Your task to perform on an android device: open chrome privacy settings Image 0: 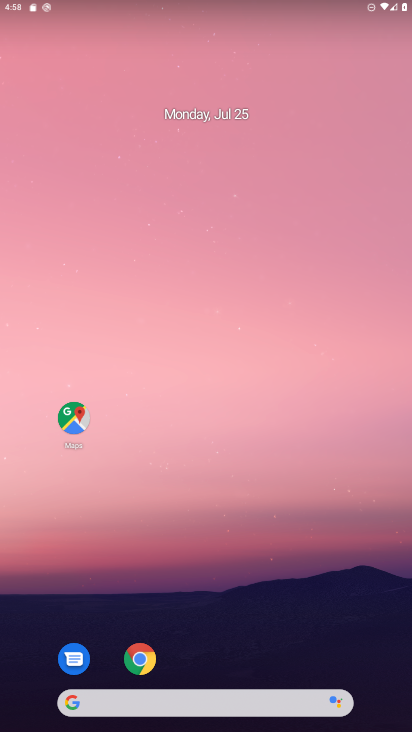
Step 0: drag from (201, 662) to (172, 158)
Your task to perform on an android device: open chrome privacy settings Image 1: 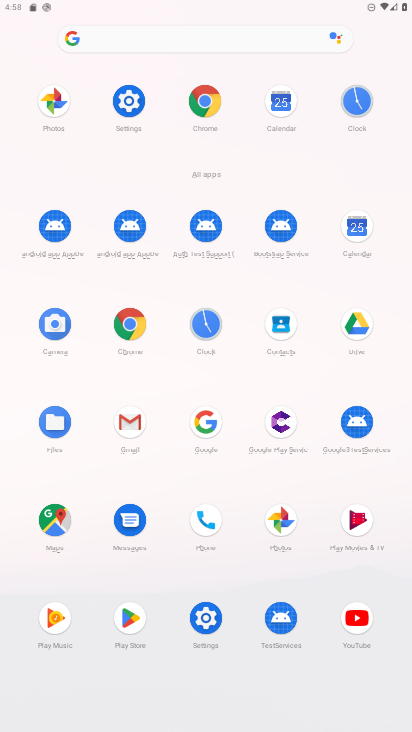
Step 1: click (202, 100)
Your task to perform on an android device: open chrome privacy settings Image 2: 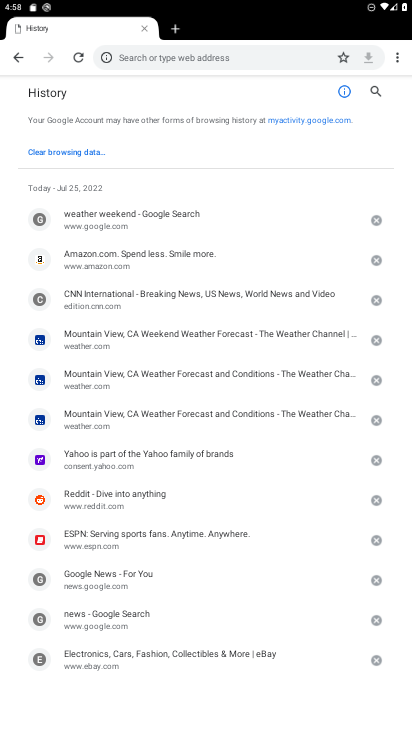
Step 2: click (202, 100)
Your task to perform on an android device: open chrome privacy settings Image 3: 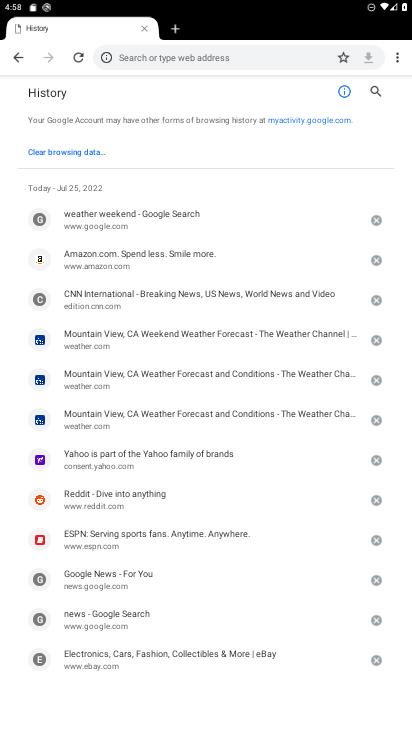
Step 3: click (202, 100)
Your task to perform on an android device: open chrome privacy settings Image 4: 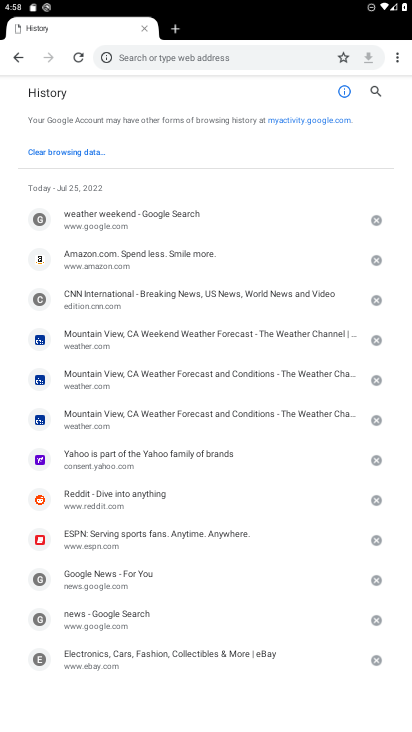
Step 4: click (401, 54)
Your task to perform on an android device: open chrome privacy settings Image 5: 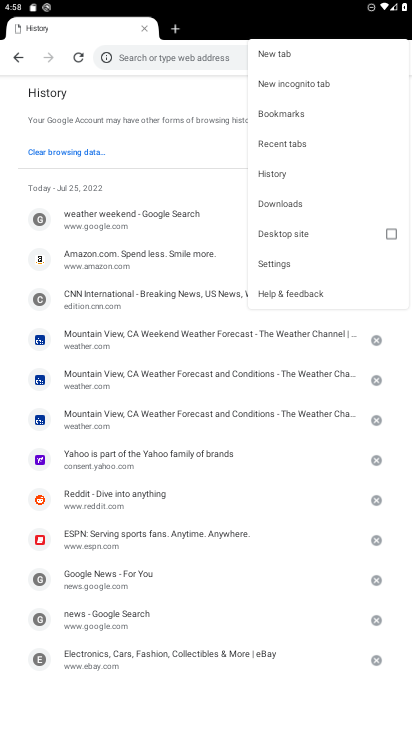
Step 5: click (282, 258)
Your task to perform on an android device: open chrome privacy settings Image 6: 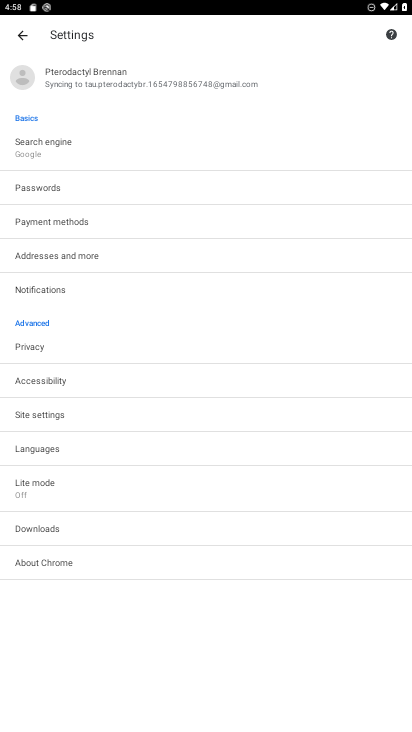
Step 6: click (28, 353)
Your task to perform on an android device: open chrome privacy settings Image 7: 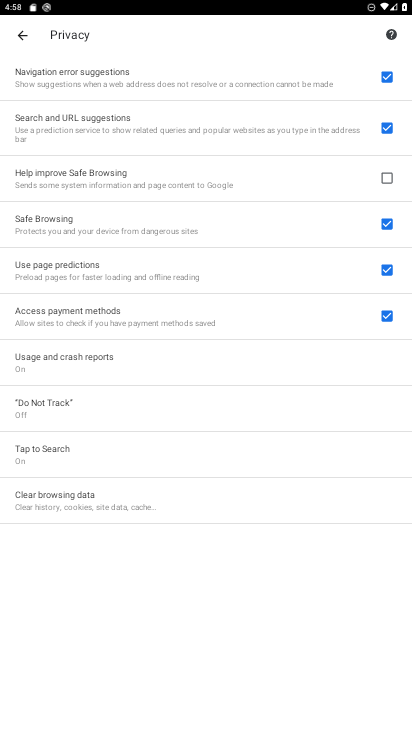
Step 7: task complete